Your task to perform on an android device: change notification settings in the gmail app Image 0: 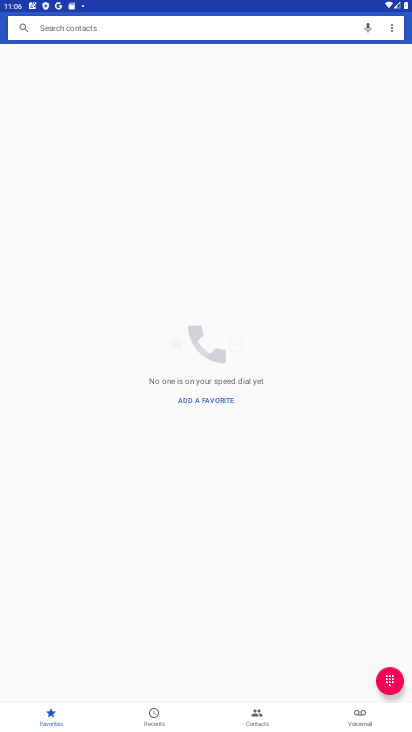
Step 0: press home button
Your task to perform on an android device: change notification settings in the gmail app Image 1: 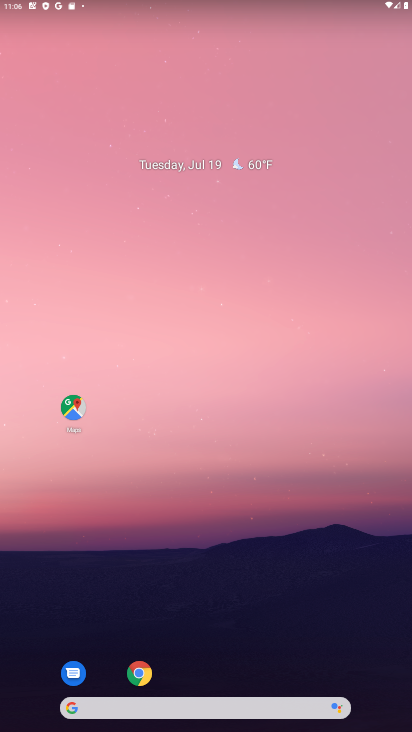
Step 1: drag from (389, 667) to (330, 291)
Your task to perform on an android device: change notification settings in the gmail app Image 2: 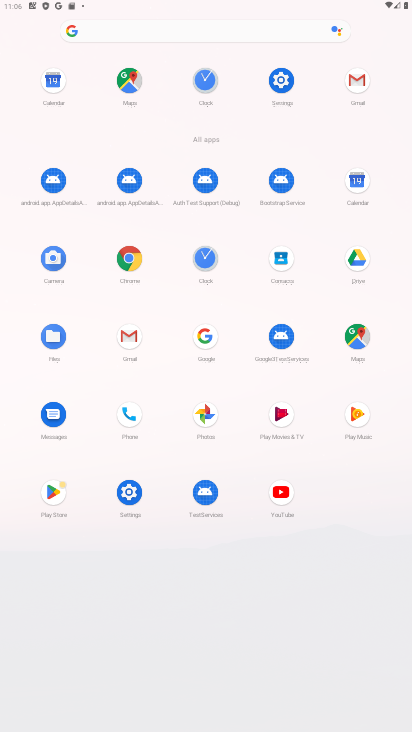
Step 2: click (127, 335)
Your task to perform on an android device: change notification settings in the gmail app Image 3: 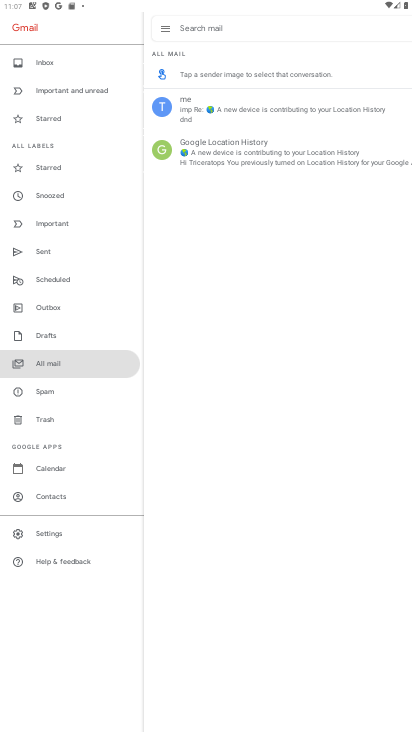
Step 3: click (45, 523)
Your task to perform on an android device: change notification settings in the gmail app Image 4: 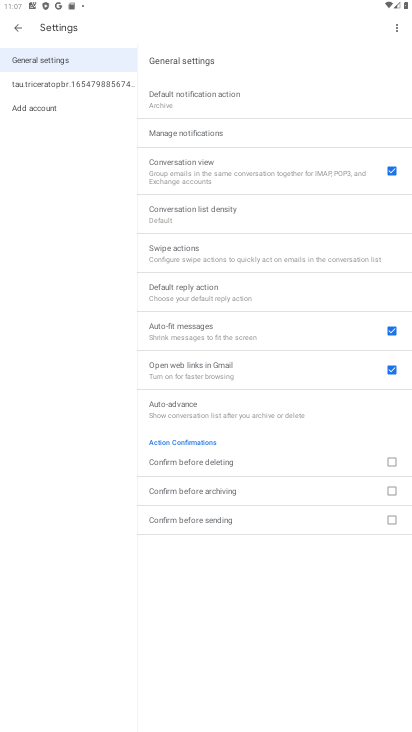
Step 4: click (61, 85)
Your task to perform on an android device: change notification settings in the gmail app Image 5: 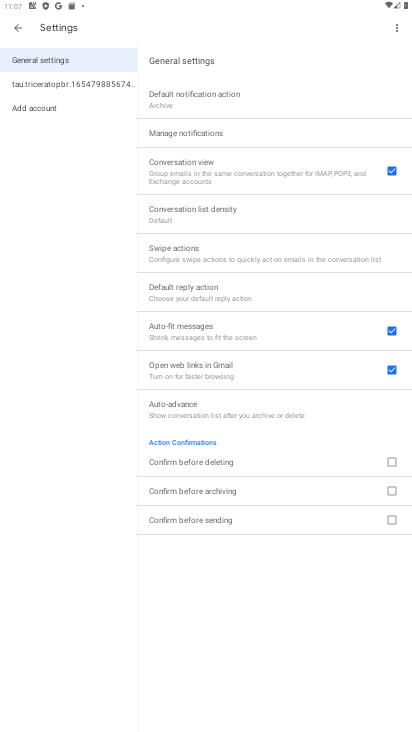
Step 5: click (61, 85)
Your task to perform on an android device: change notification settings in the gmail app Image 6: 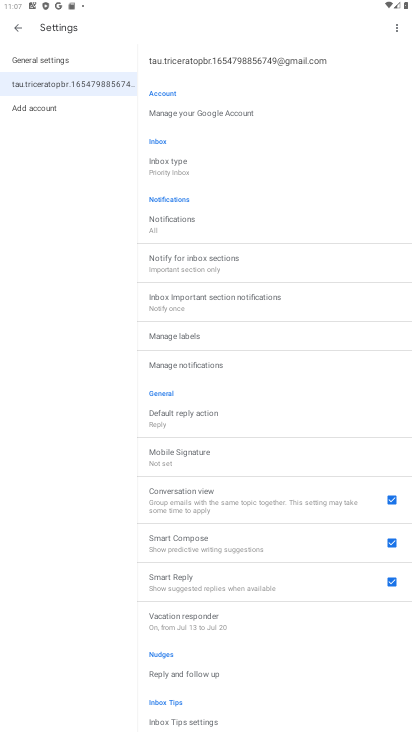
Step 6: click (193, 361)
Your task to perform on an android device: change notification settings in the gmail app Image 7: 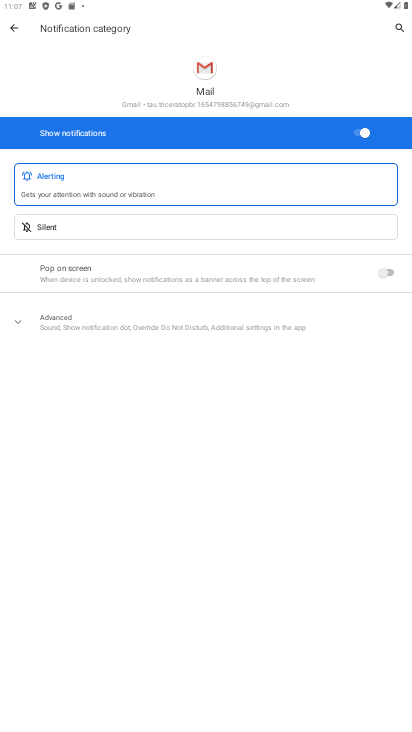
Step 7: click (354, 128)
Your task to perform on an android device: change notification settings in the gmail app Image 8: 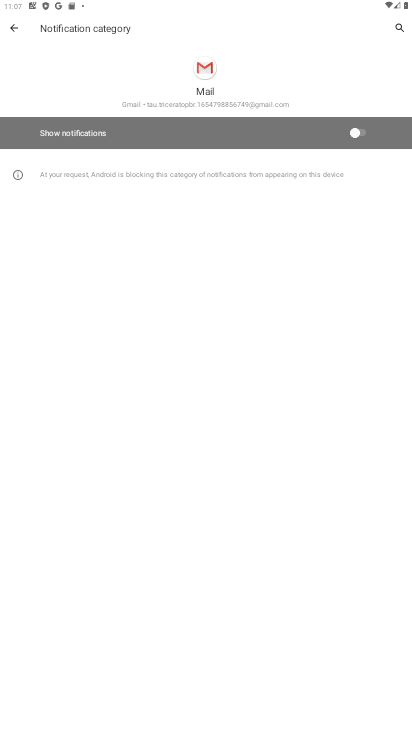
Step 8: task complete